Your task to perform on an android device: delete the emails in spam in the gmail app Image 0: 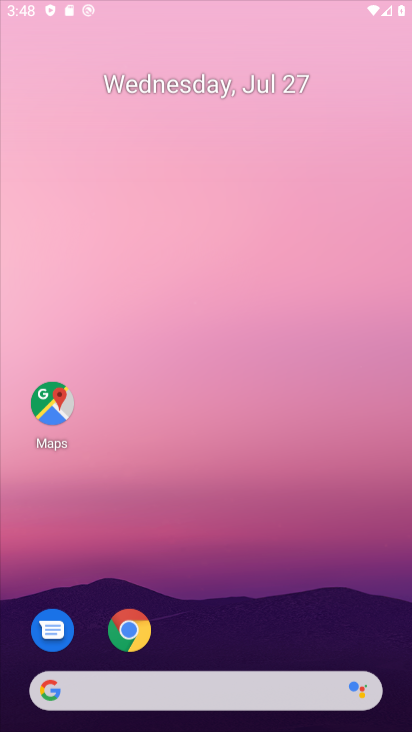
Step 0: press home button
Your task to perform on an android device: delete the emails in spam in the gmail app Image 1: 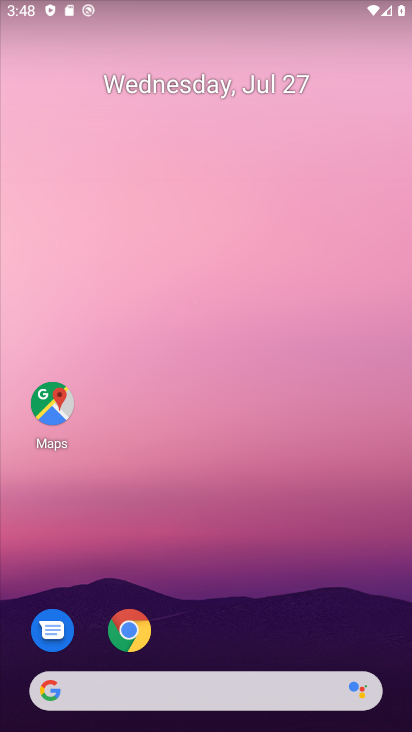
Step 1: drag from (235, 658) to (276, 35)
Your task to perform on an android device: delete the emails in spam in the gmail app Image 2: 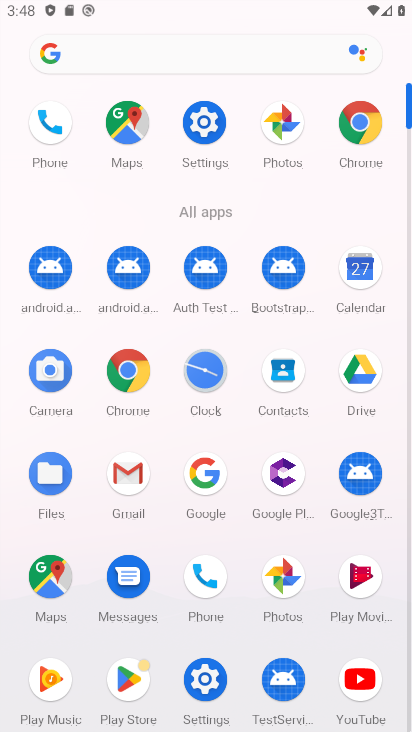
Step 2: click (120, 462)
Your task to perform on an android device: delete the emails in spam in the gmail app Image 3: 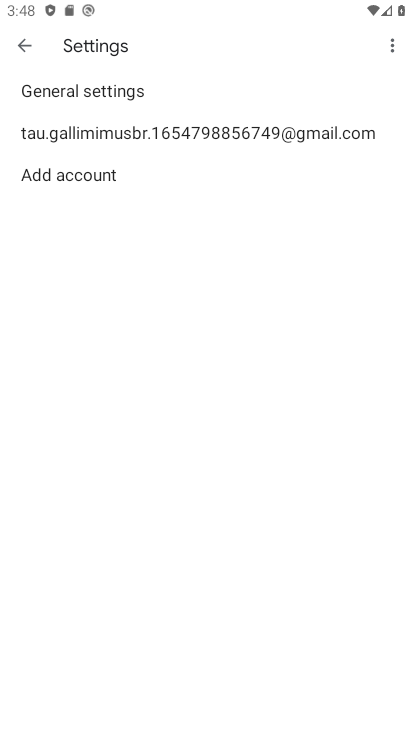
Step 3: click (26, 42)
Your task to perform on an android device: delete the emails in spam in the gmail app Image 4: 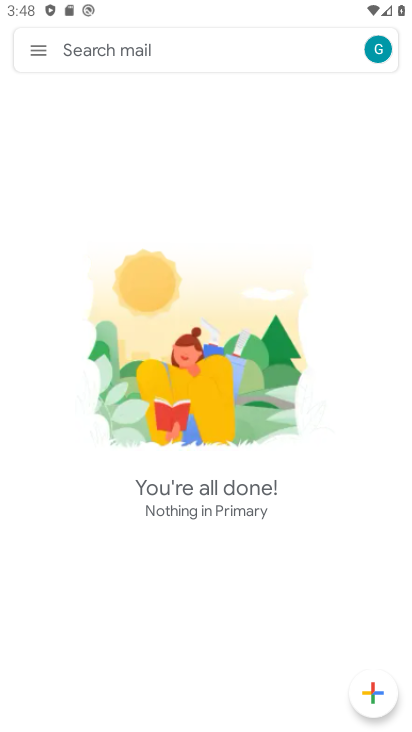
Step 4: click (36, 40)
Your task to perform on an android device: delete the emails in spam in the gmail app Image 5: 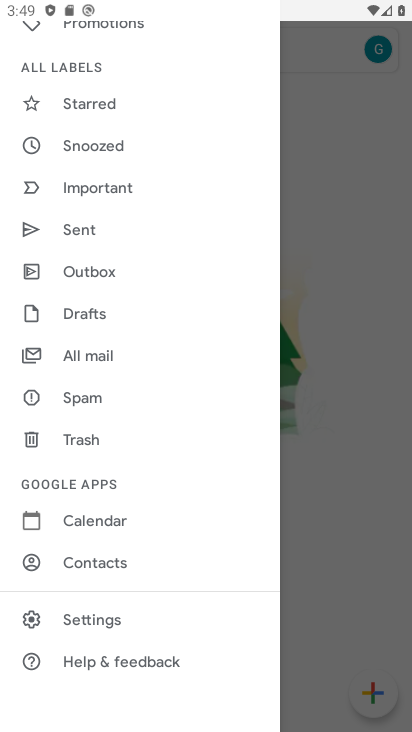
Step 5: click (106, 394)
Your task to perform on an android device: delete the emails in spam in the gmail app Image 6: 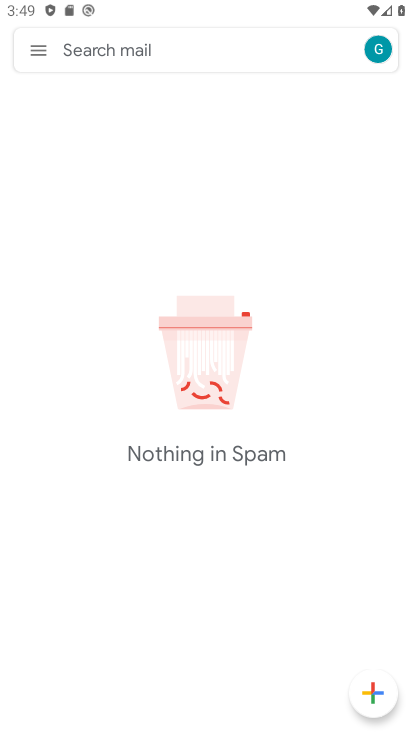
Step 6: task complete